Your task to perform on an android device: open chrome privacy settings Image 0: 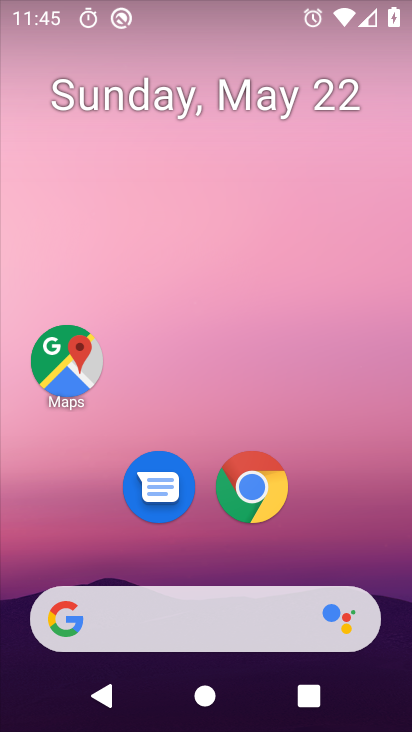
Step 0: drag from (372, 516) to (363, 79)
Your task to perform on an android device: open chrome privacy settings Image 1: 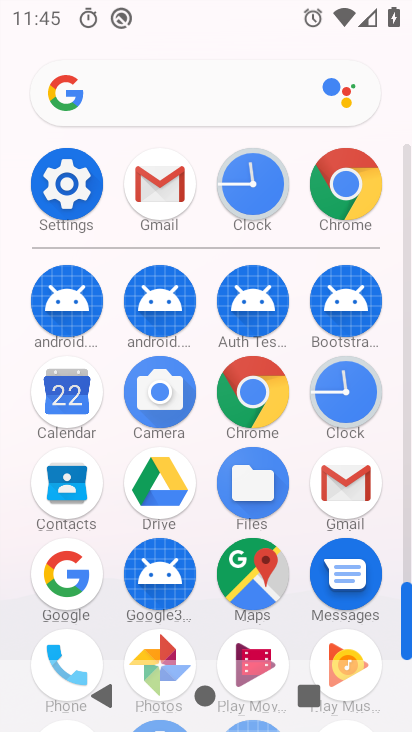
Step 1: click (52, 199)
Your task to perform on an android device: open chrome privacy settings Image 2: 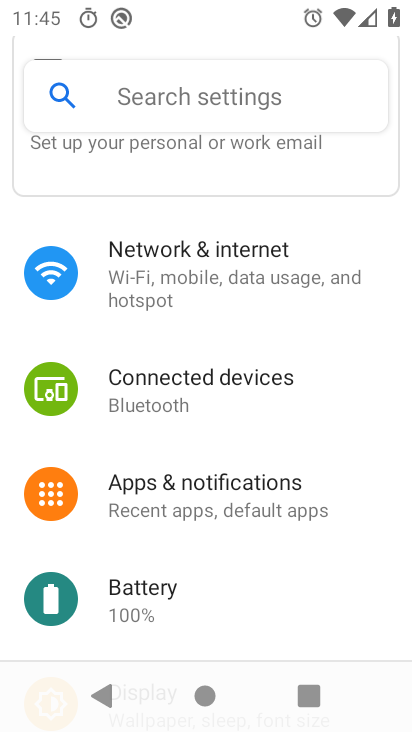
Step 2: drag from (222, 576) to (225, 317)
Your task to perform on an android device: open chrome privacy settings Image 3: 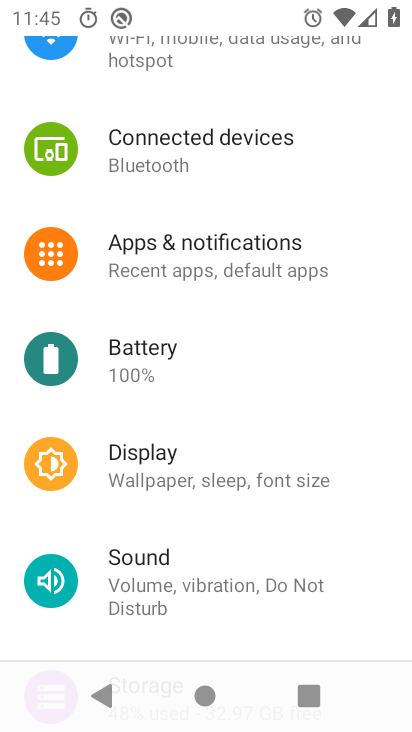
Step 3: drag from (210, 530) to (220, 320)
Your task to perform on an android device: open chrome privacy settings Image 4: 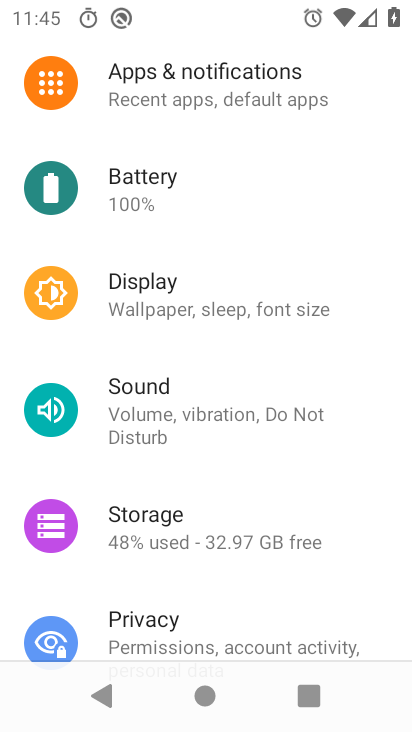
Step 4: click (190, 618)
Your task to perform on an android device: open chrome privacy settings Image 5: 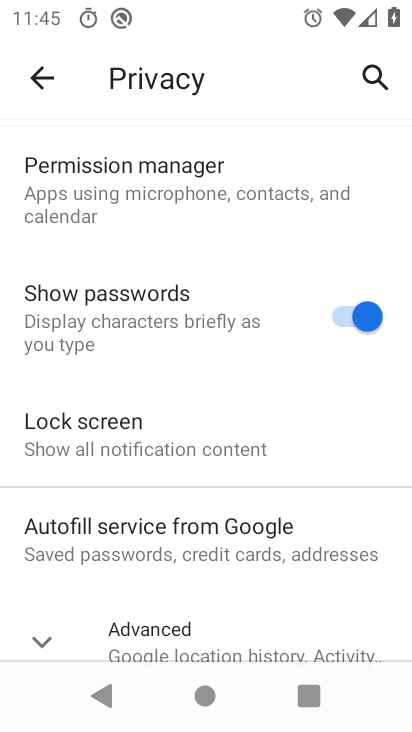
Step 5: task complete